Your task to perform on an android device: Open Google Chrome and click the shortcut for Amazon.com Image 0: 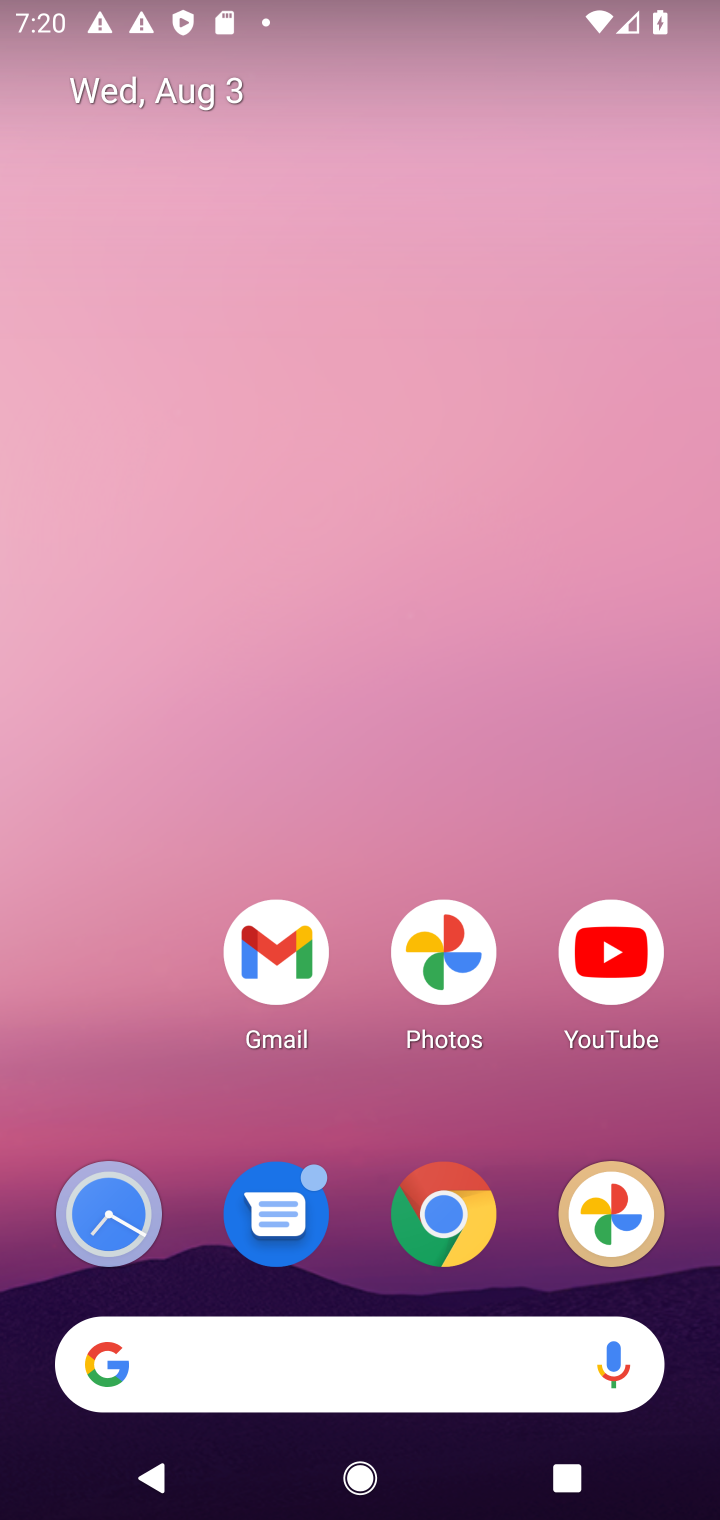
Step 0: drag from (305, 1095) to (311, 548)
Your task to perform on an android device: Open Google Chrome and click the shortcut for Amazon.com Image 1: 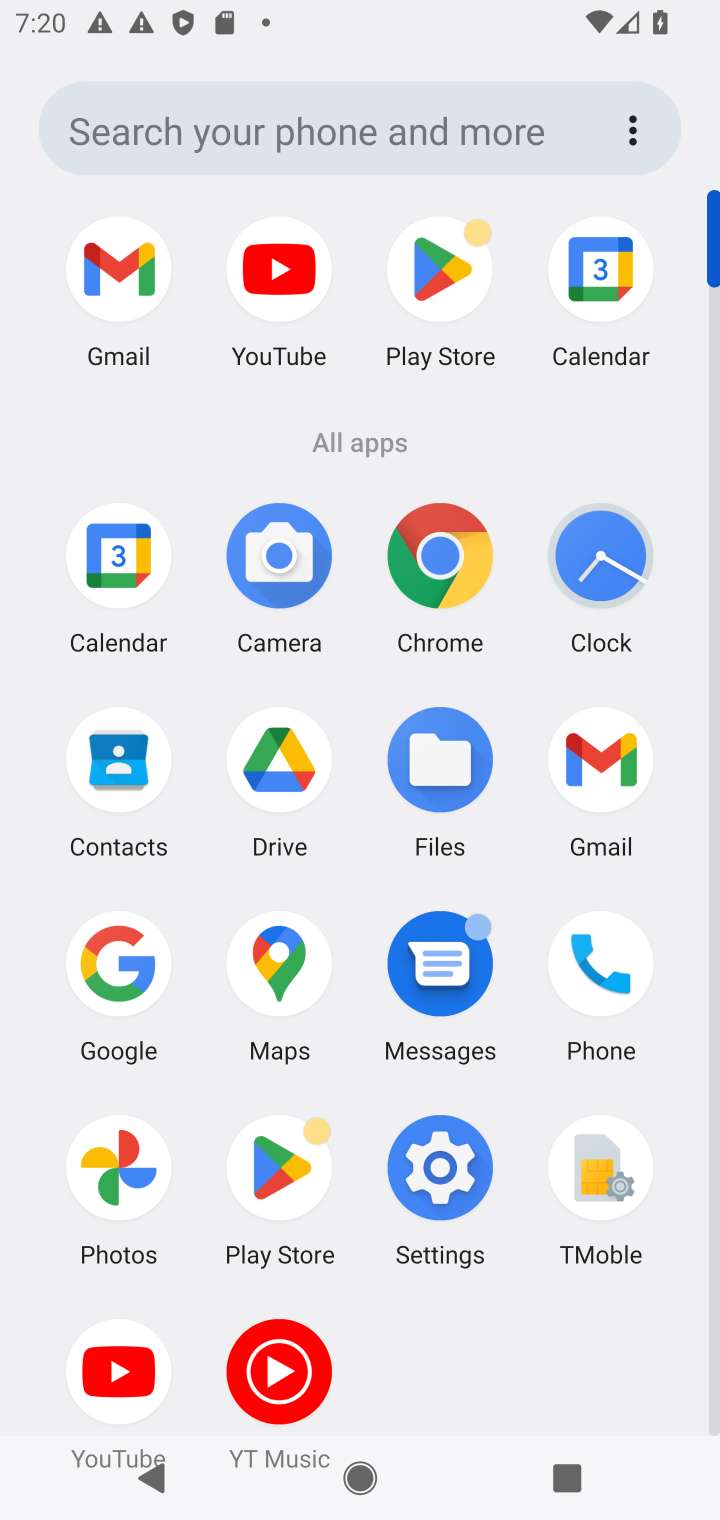
Step 1: click (458, 549)
Your task to perform on an android device: Open Google Chrome and click the shortcut for Amazon.com Image 2: 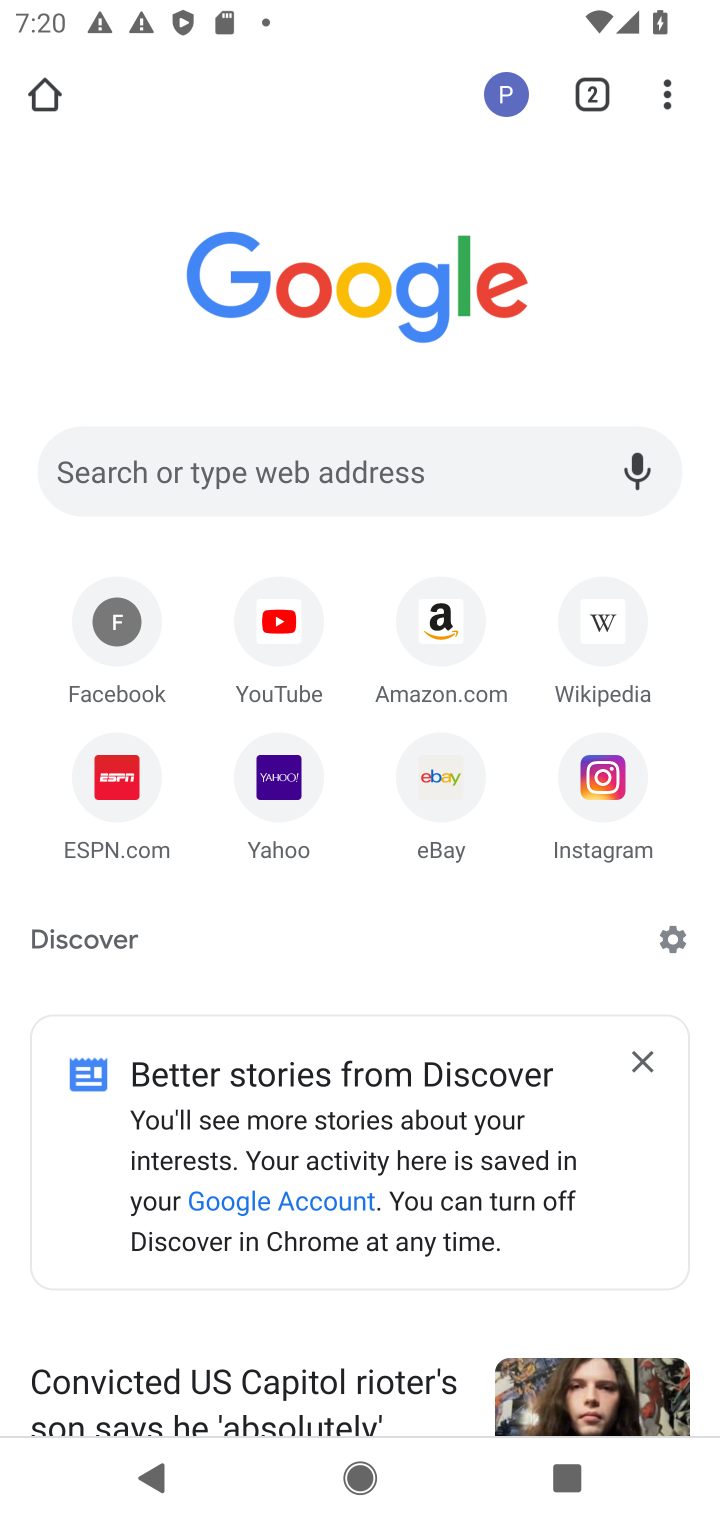
Step 2: click (429, 596)
Your task to perform on an android device: Open Google Chrome and click the shortcut for Amazon.com Image 3: 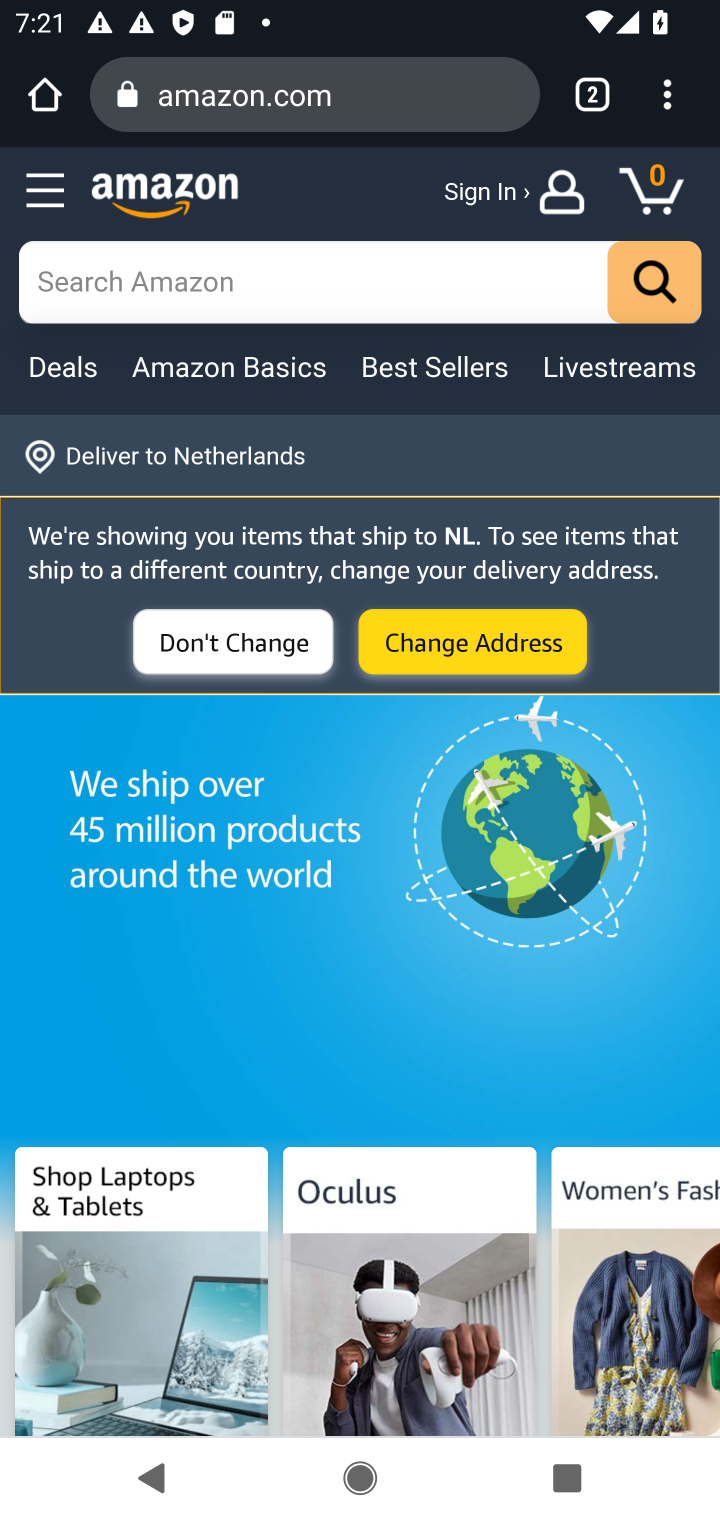
Step 3: task complete